Your task to perform on an android device: What is the recent news? Image 0: 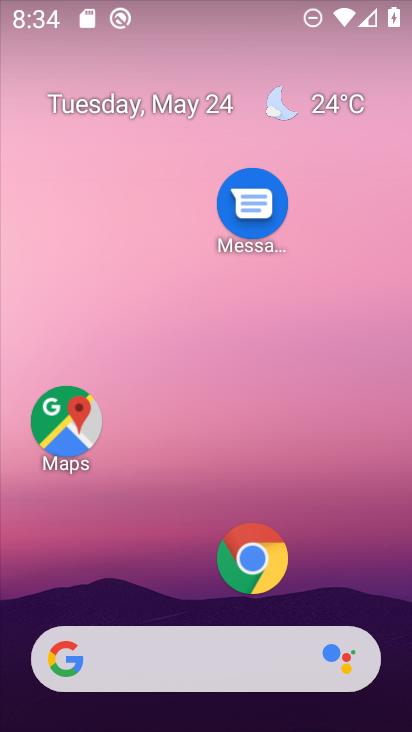
Step 0: drag from (189, 555) to (189, 218)
Your task to perform on an android device: What is the recent news? Image 1: 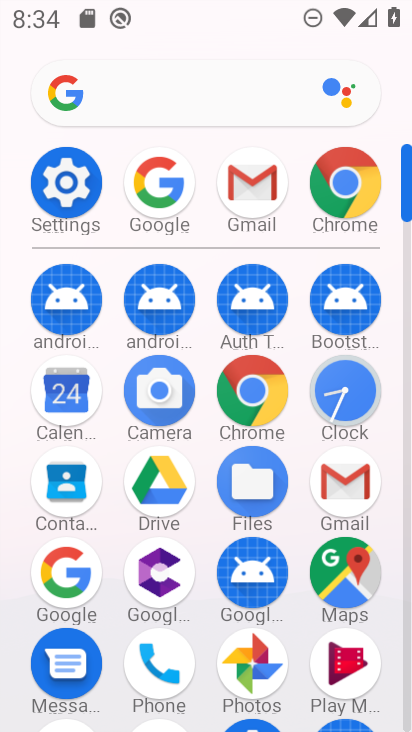
Step 1: click (176, 209)
Your task to perform on an android device: What is the recent news? Image 2: 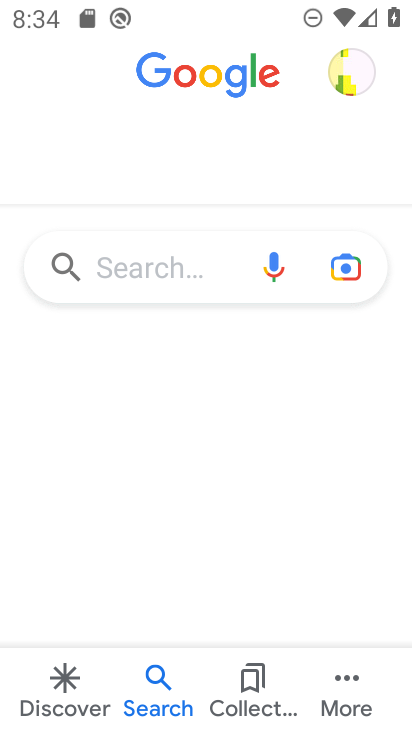
Step 2: click (165, 263)
Your task to perform on an android device: What is the recent news? Image 3: 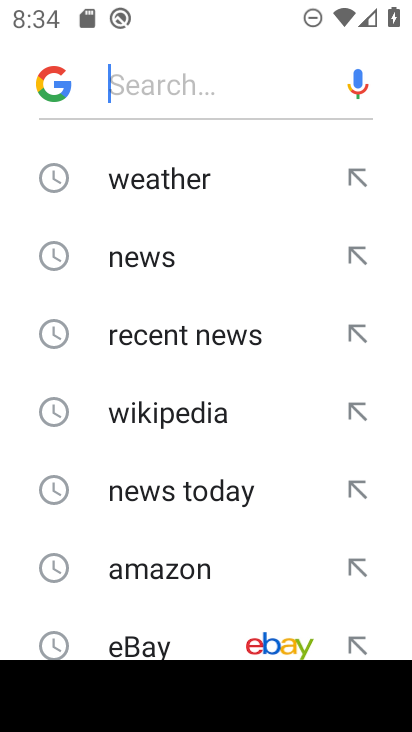
Step 3: click (165, 263)
Your task to perform on an android device: What is the recent news? Image 4: 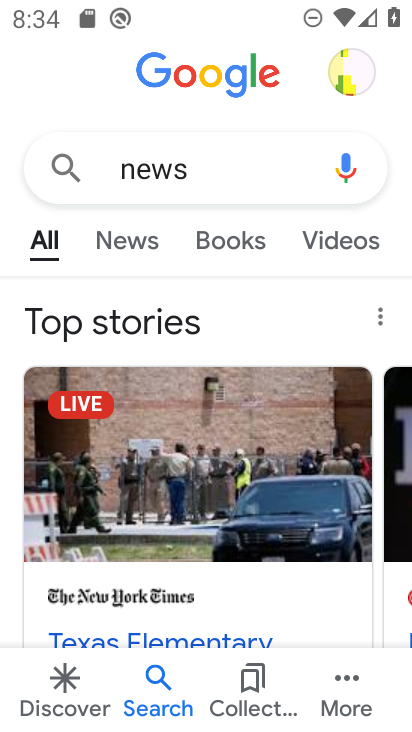
Step 4: click (123, 246)
Your task to perform on an android device: What is the recent news? Image 5: 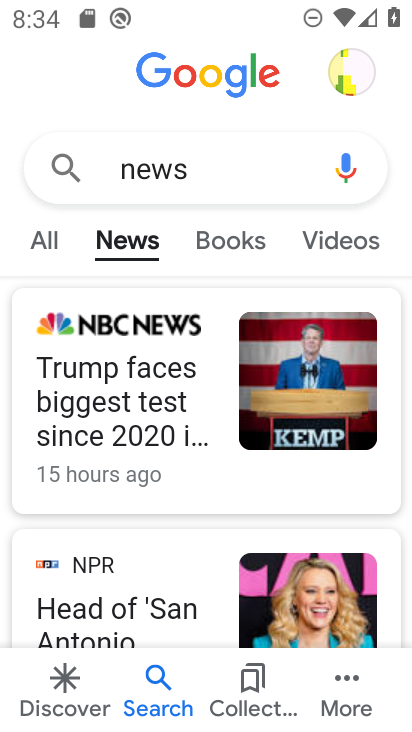
Step 5: task complete